Your task to perform on an android device: add a label to a message in the gmail app Image 0: 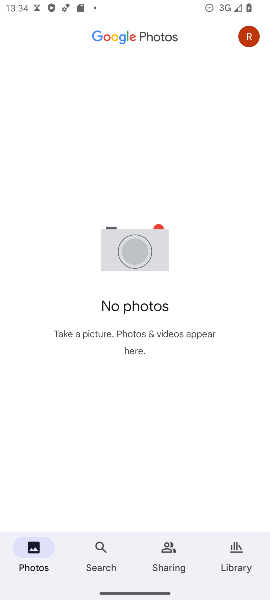
Step 0: press home button
Your task to perform on an android device: add a label to a message in the gmail app Image 1: 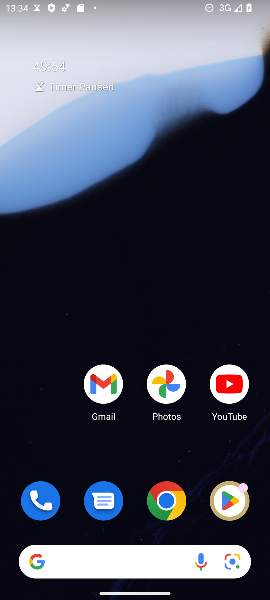
Step 1: click (98, 395)
Your task to perform on an android device: add a label to a message in the gmail app Image 2: 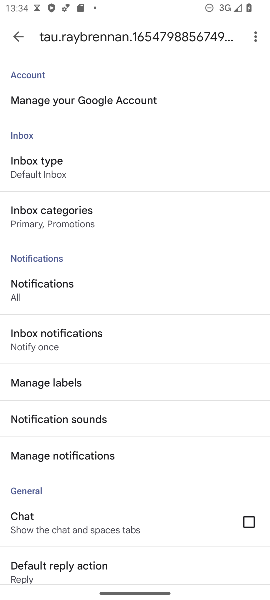
Step 2: click (17, 31)
Your task to perform on an android device: add a label to a message in the gmail app Image 3: 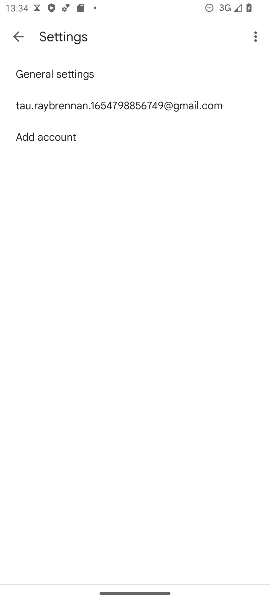
Step 3: click (17, 31)
Your task to perform on an android device: add a label to a message in the gmail app Image 4: 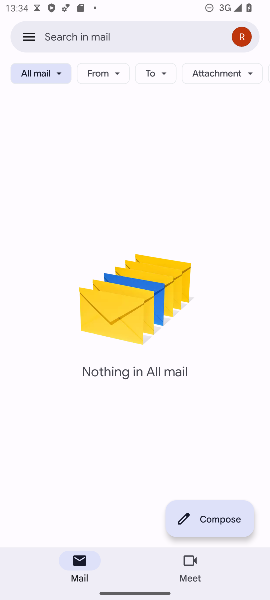
Step 4: task complete